Your task to perform on an android device: turn notification dots on Image 0: 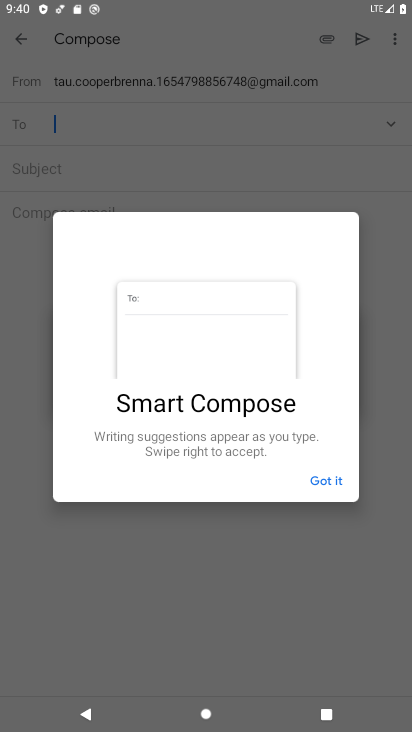
Step 0: press home button
Your task to perform on an android device: turn notification dots on Image 1: 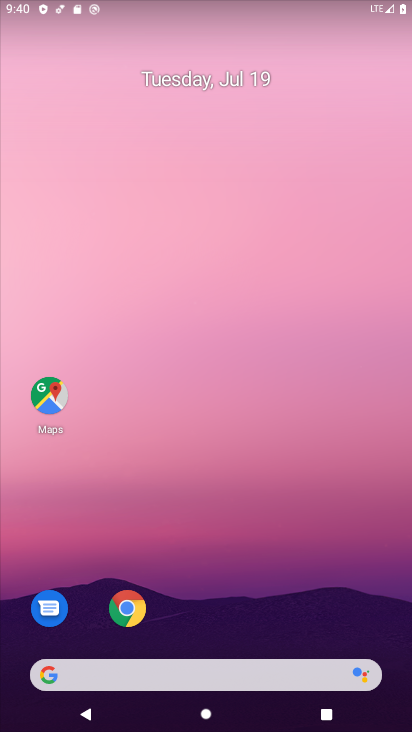
Step 1: drag from (274, 605) to (242, 127)
Your task to perform on an android device: turn notification dots on Image 2: 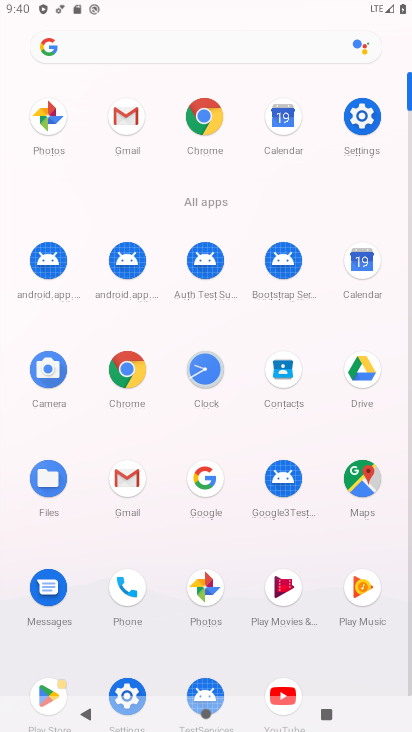
Step 2: click (339, 106)
Your task to perform on an android device: turn notification dots on Image 3: 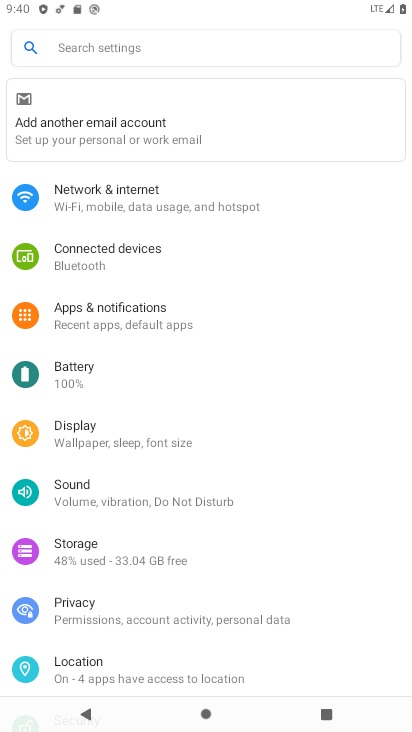
Step 3: click (216, 309)
Your task to perform on an android device: turn notification dots on Image 4: 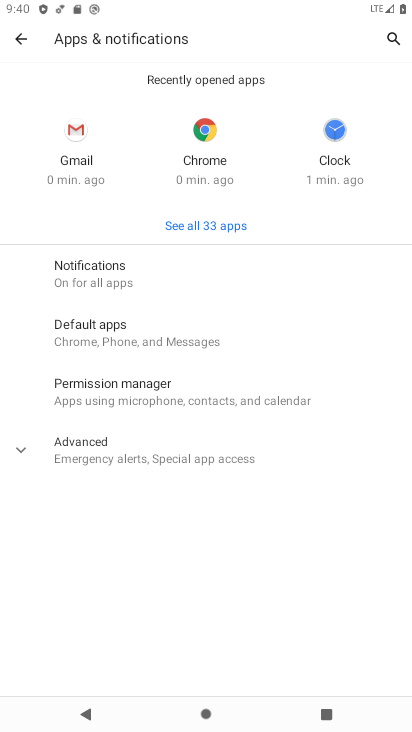
Step 4: click (283, 262)
Your task to perform on an android device: turn notification dots on Image 5: 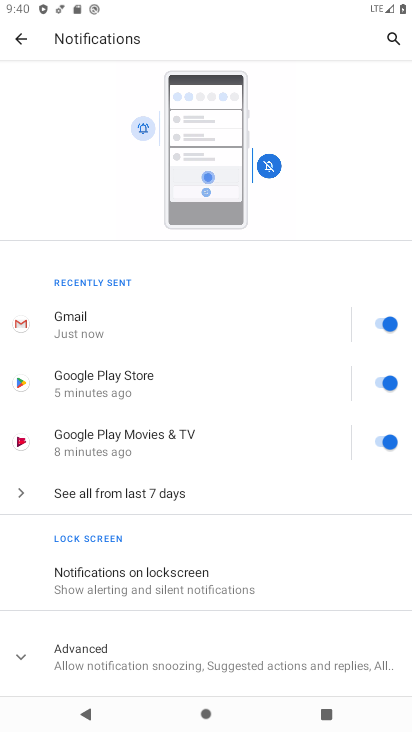
Step 5: click (213, 661)
Your task to perform on an android device: turn notification dots on Image 6: 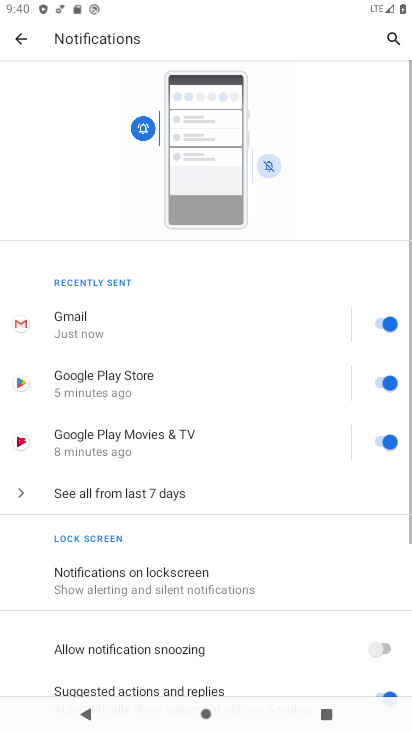
Step 6: task complete